Your task to perform on an android device: Open sound settings Image 0: 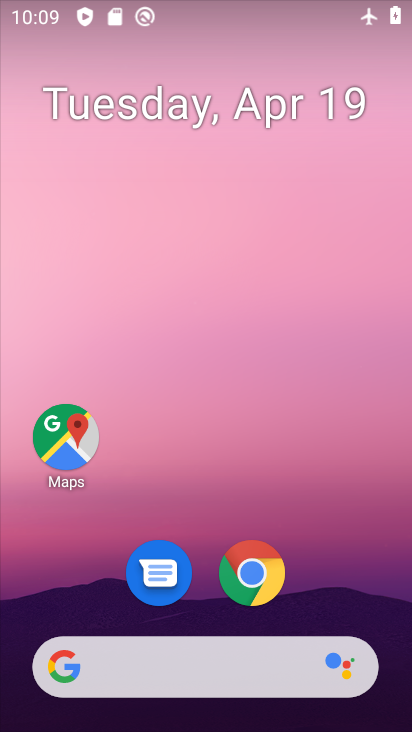
Step 0: drag from (348, 597) to (349, 103)
Your task to perform on an android device: Open sound settings Image 1: 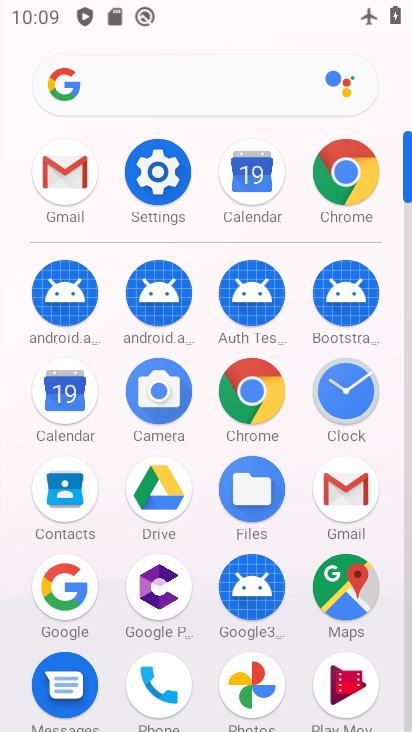
Step 1: click (161, 164)
Your task to perform on an android device: Open sound settings Image 2: 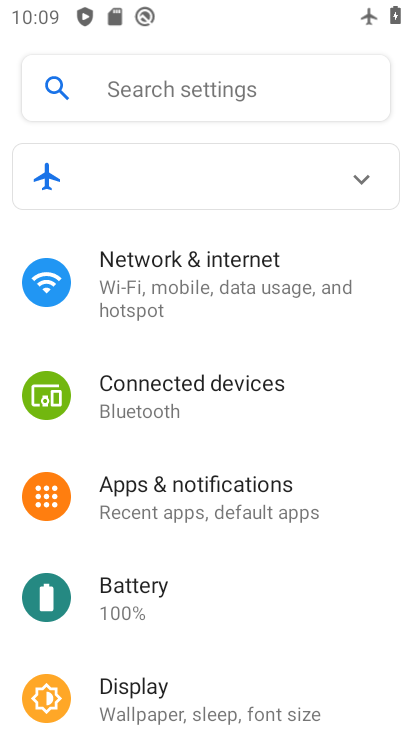
Step 2: drag from (353, 570) to (364, 309)
Your task to perform on an android device: Open sound settings Image 3: 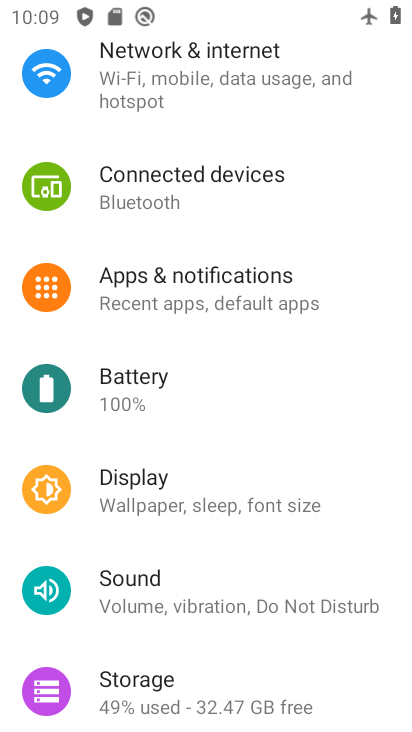
Step 3: drag from (368, 539) to (372, 337)
Your task to perform on an android device: Open sound settings Image 4: 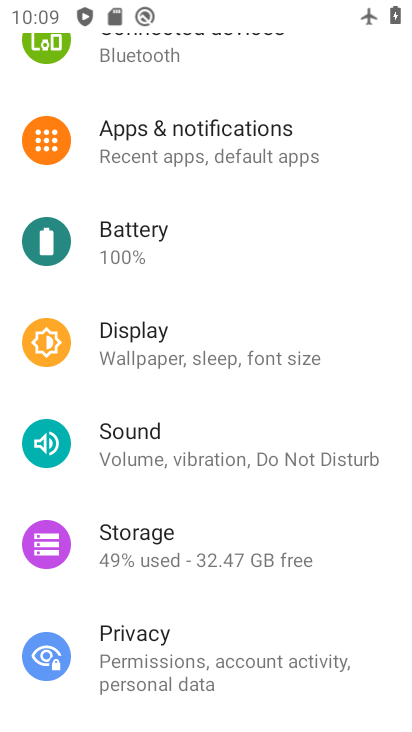
Step 4: click (129, 434)
Your task to perform on an android device: Open sound settings Image 5: 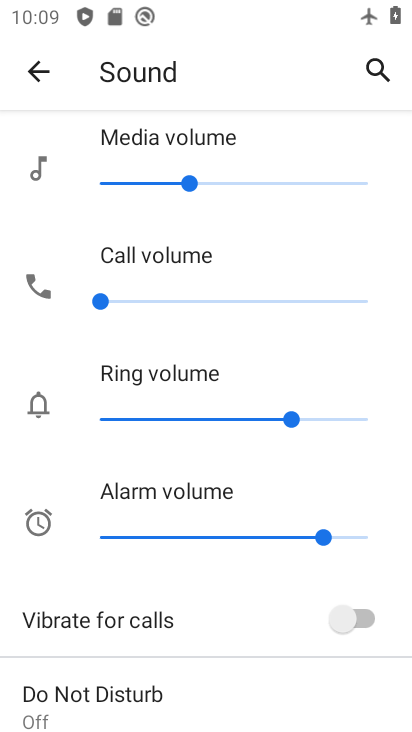
Step 5: task complete